Your task to perform on an android device: Go to Google maps Image 0: 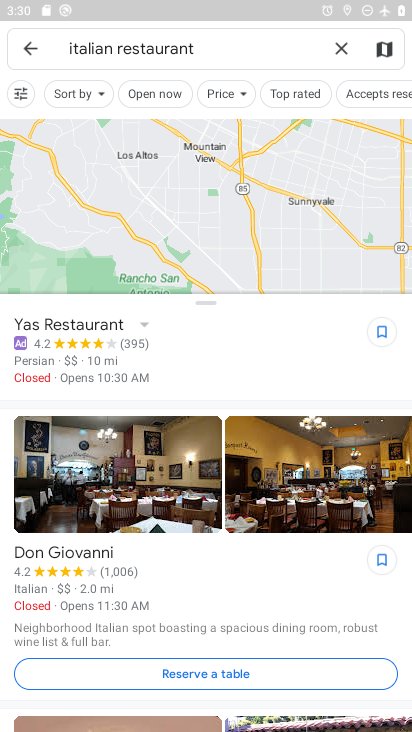
Step 0: task complete